Your task to perform on an android device: Open eBay Image 0: 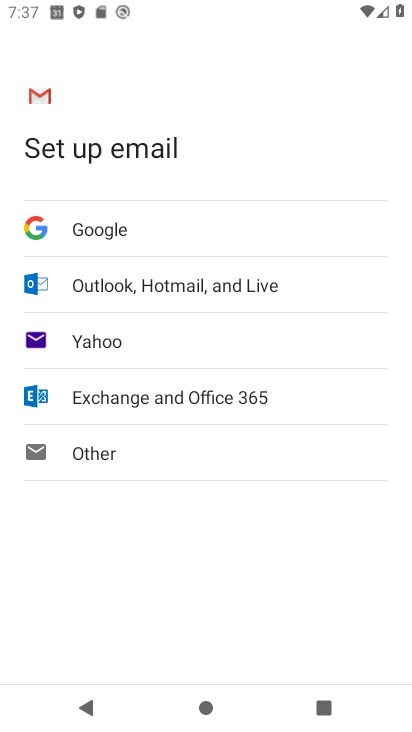
Step 0: press home button
Your task to perform on an android device: Open eBay Image 1: 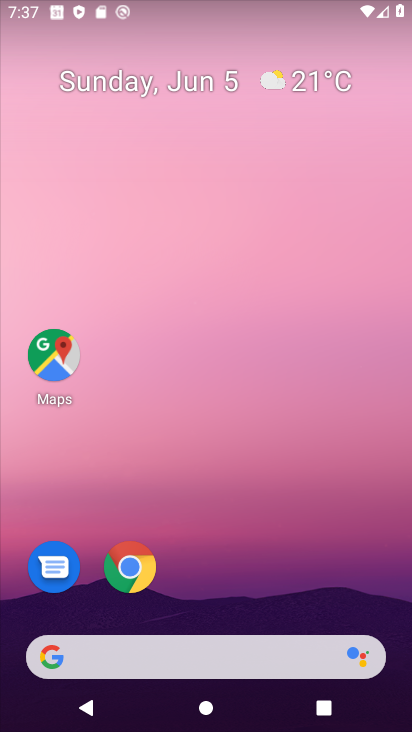
Step 1: click (123, 570)
Your task to perform on an android device: Open eBay Image 2: 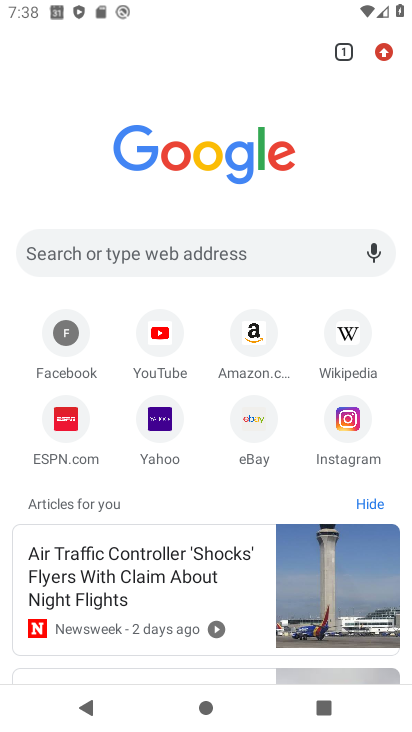
Step 2: click (234, 432)
Your task to perform on an android device: Open eBay Image 3: 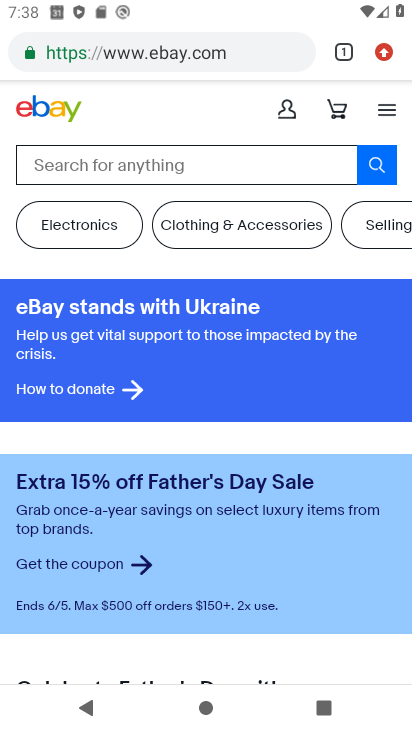
Step 3: task complete